Your task to perform on an android device: Search for "logitech g910" on newegg.com, select the first entry, add it to the cart, then select checkout. Image 0: 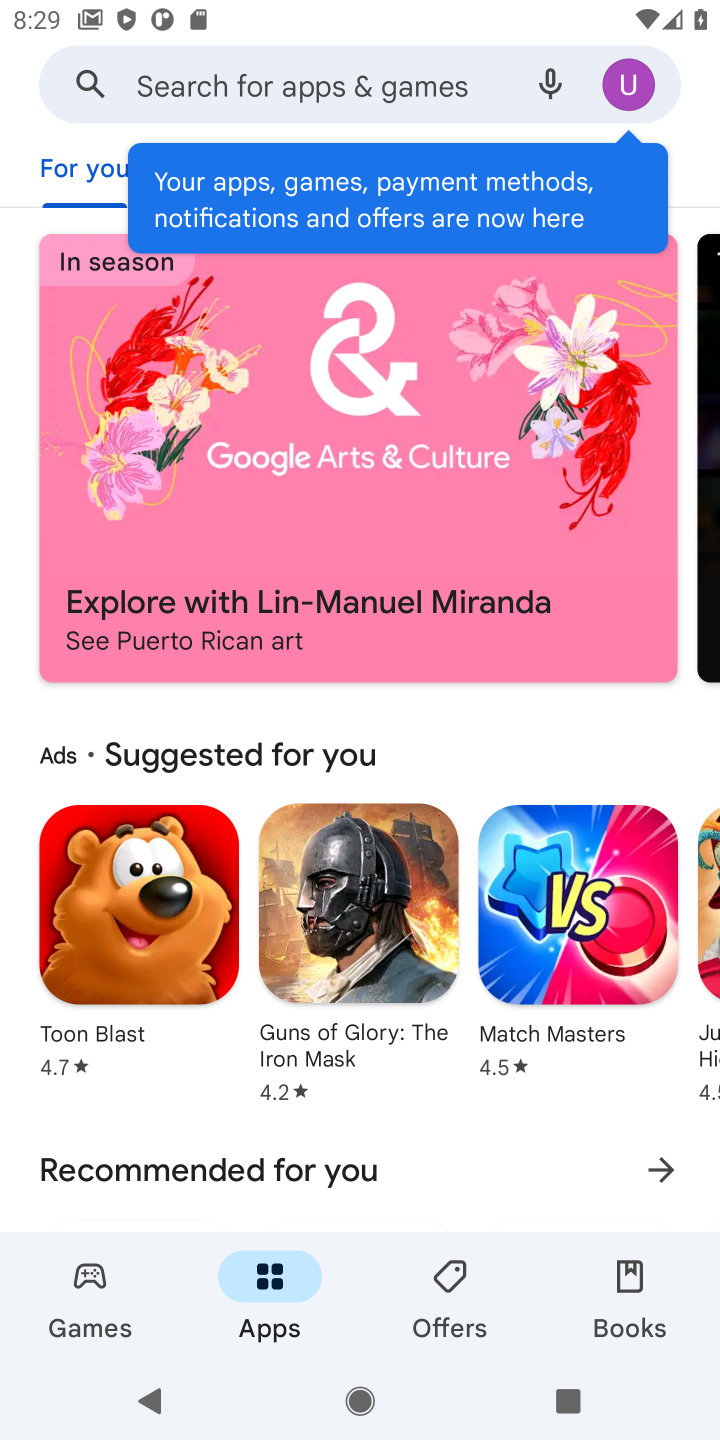
Step 0: press home button
Your task to perform on an android device: Search for "logitech g910" on newegg.com, select the first entry, add it to the cart, then select checkout. Image 1: 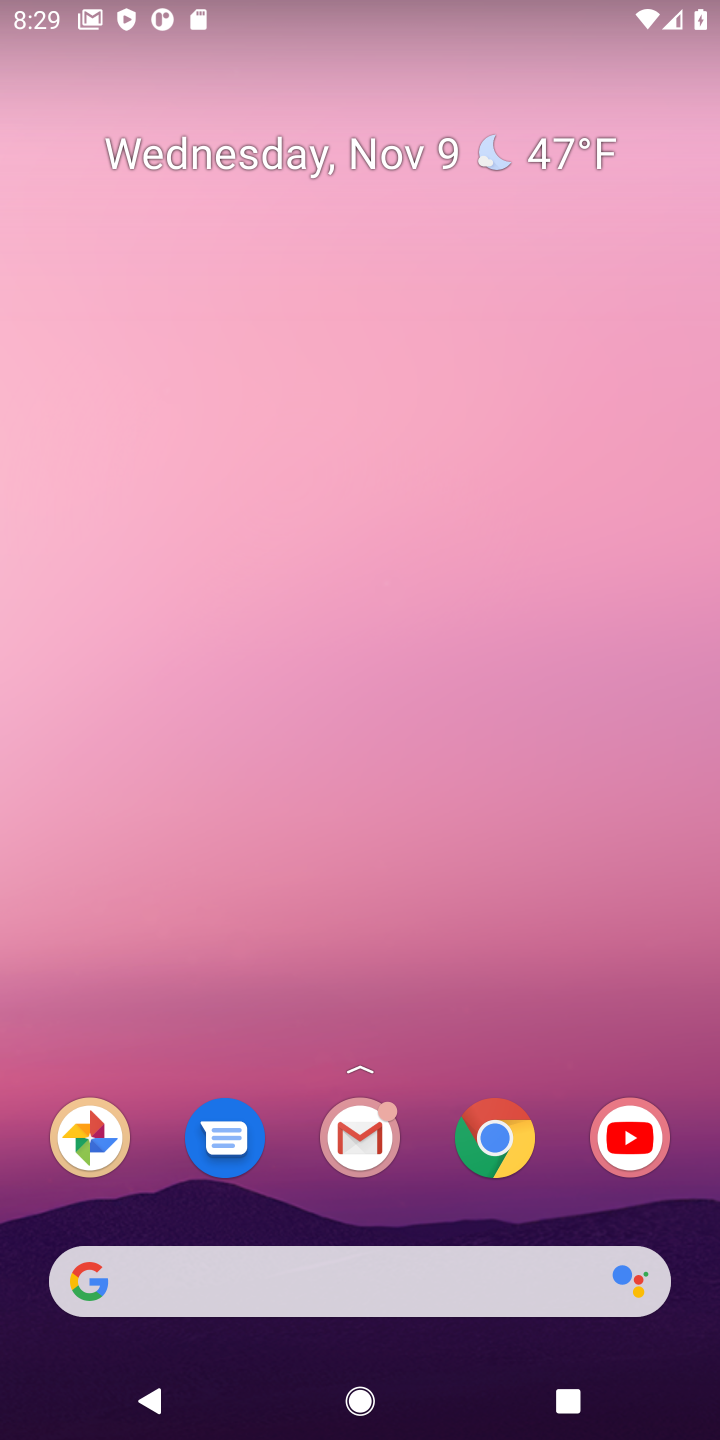
Step 1: drag from (459, 1211) to (430, 162)
Your task to perform on an android device: Search for "logitech g910" on newegg.com, select the first entry, add it to the cart, then select checkout. Image 2: 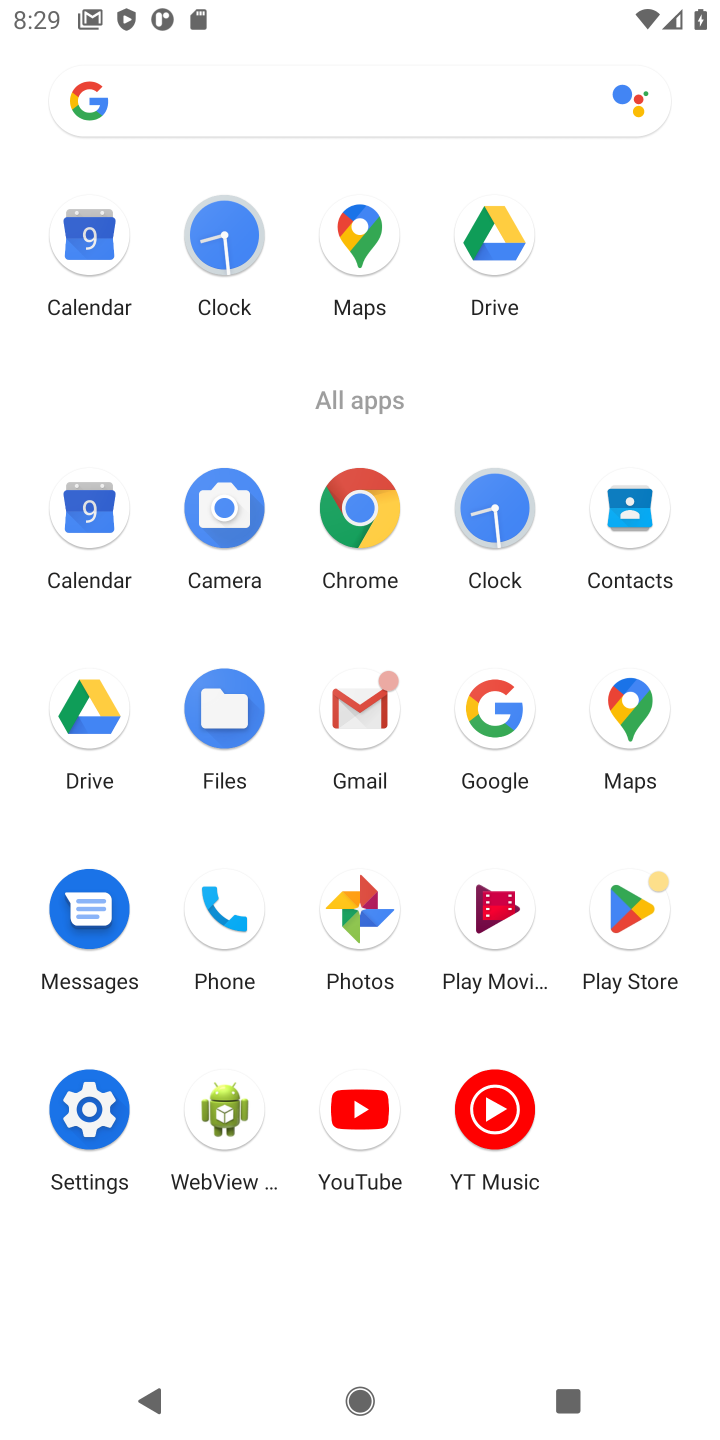
Step 2: click (354, 495)
Your task to perform on an android device: Search for "logitech g910" on newegg.com, select the first entry, add it to the cart, then select checkout. Image 3: 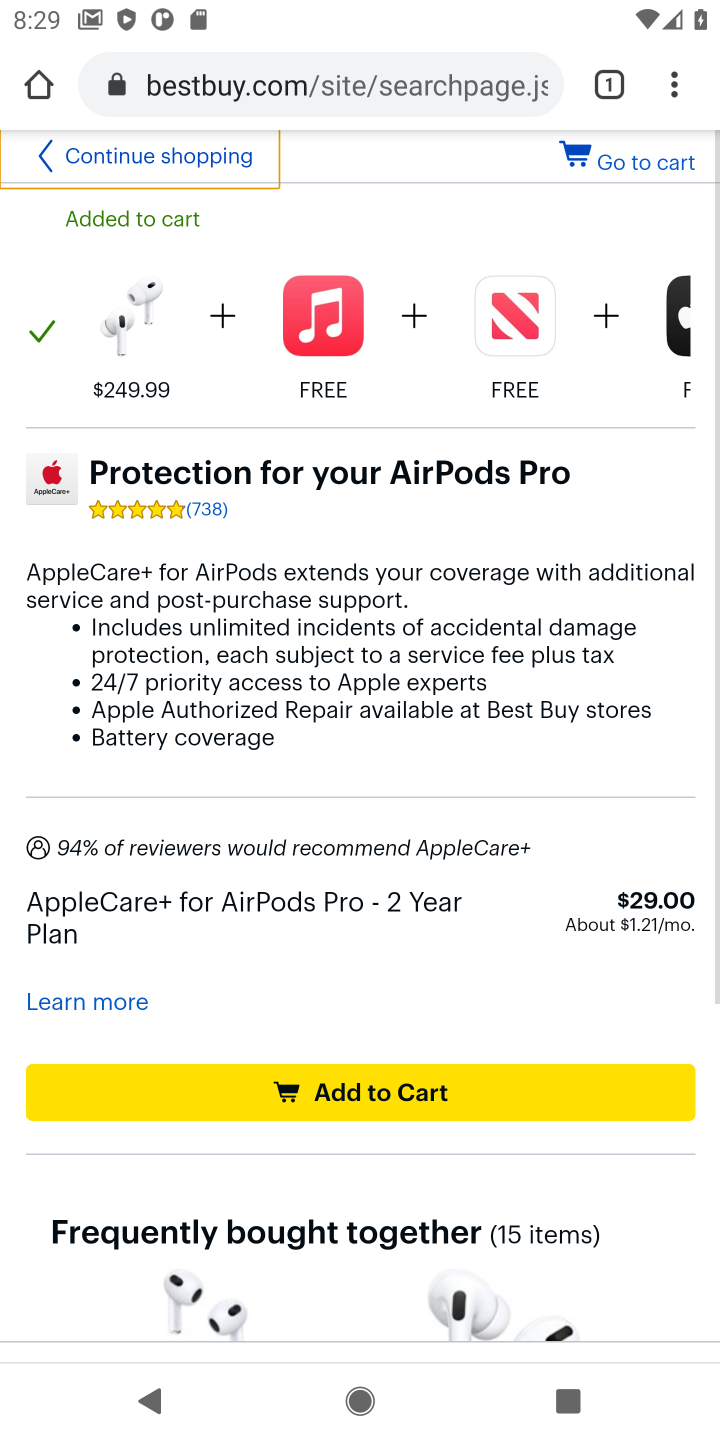
Step 3: drag from (441, 220) to (463, 510)
Your task to perform on an android device: Search for "logitech g910" on newegg.com, select the first entry, add it to the cart, then select checkout. Image 4: 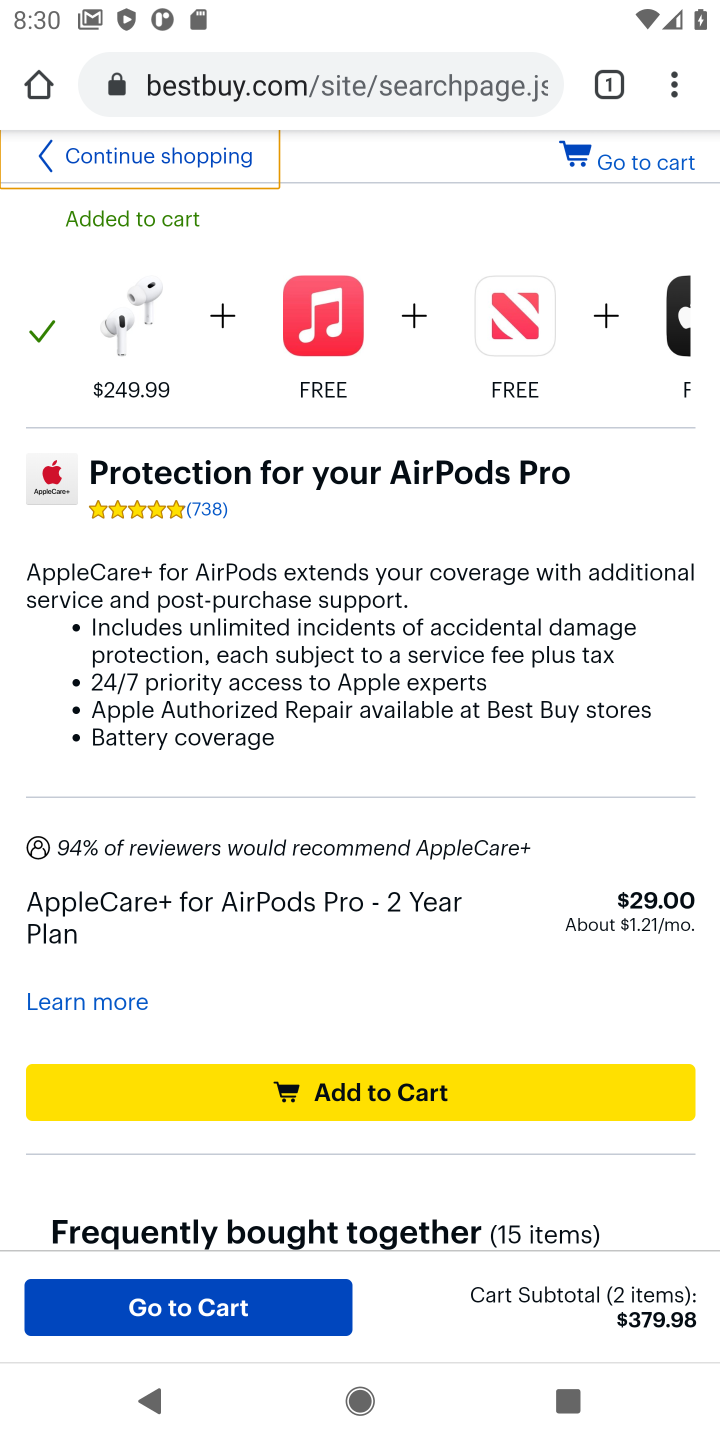
Step 4: click (393, 77)
Your task to perform on an android device: Search for "logitech g910" on newegg.com, select the first entry, add it to the cart, then select checkout. Image 5: 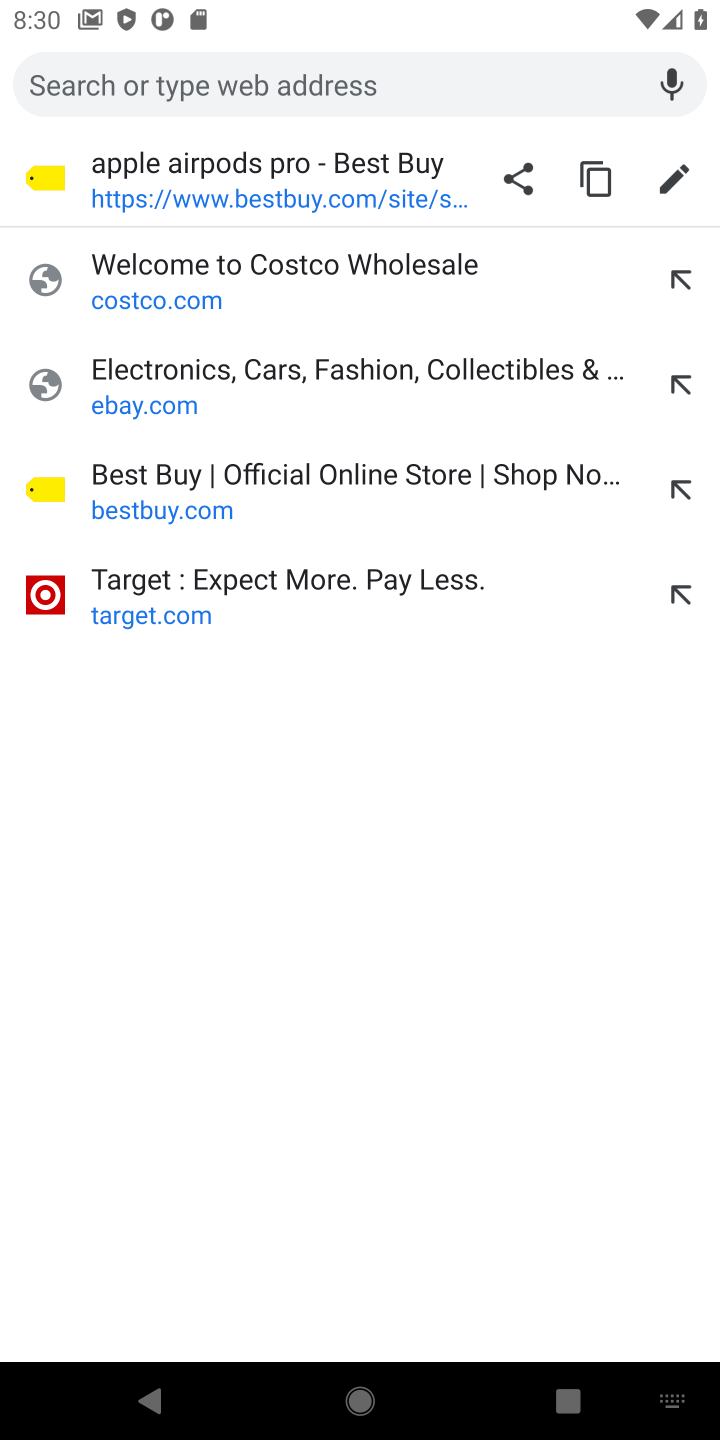
Step 5: type "newegg.com"
Your task to perform on an android device: Search for "logitech g910" on newegg.com, select the first entry, add it to the cart, then select checkout. Image 6: 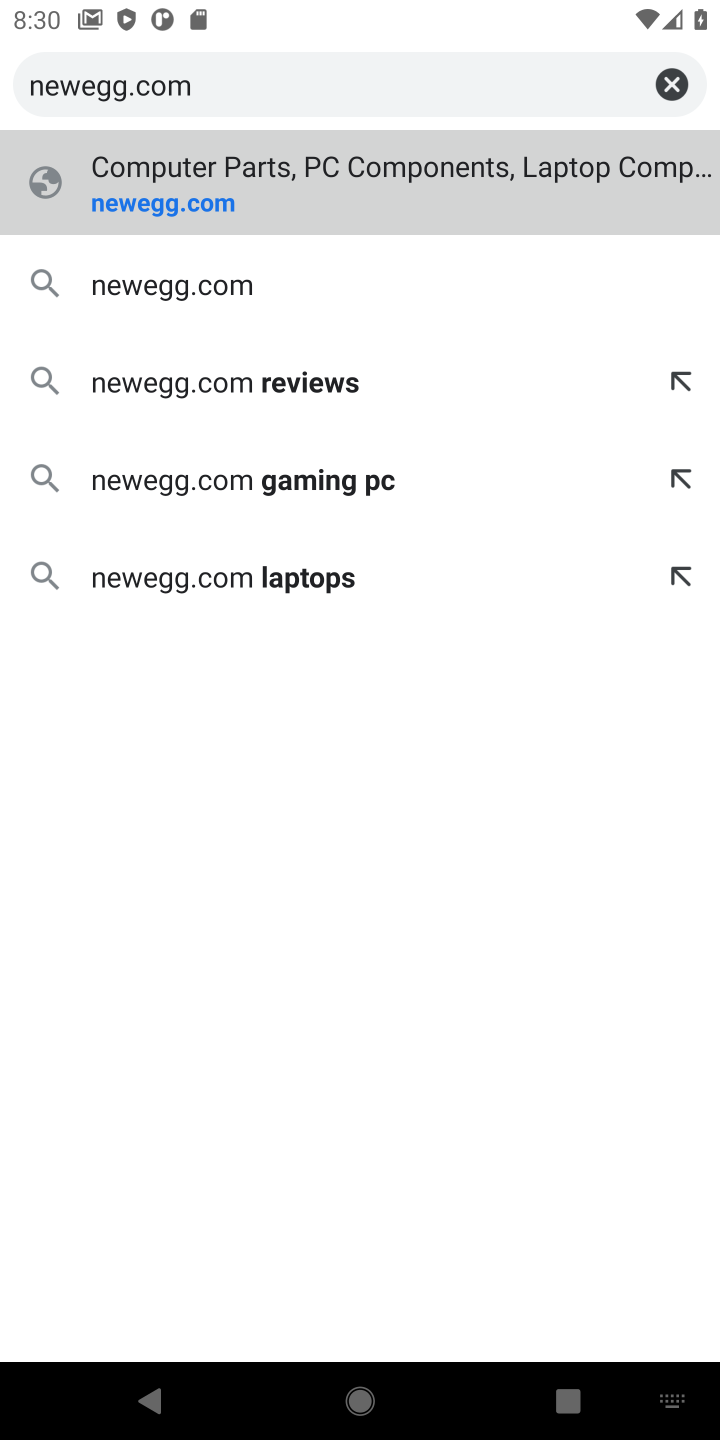
Step 6: press enter
Your task to perform on an android device: Search for "logitech g910" on newegg.com, select the first entry, add it to the cart, then select checkout. Image 7: 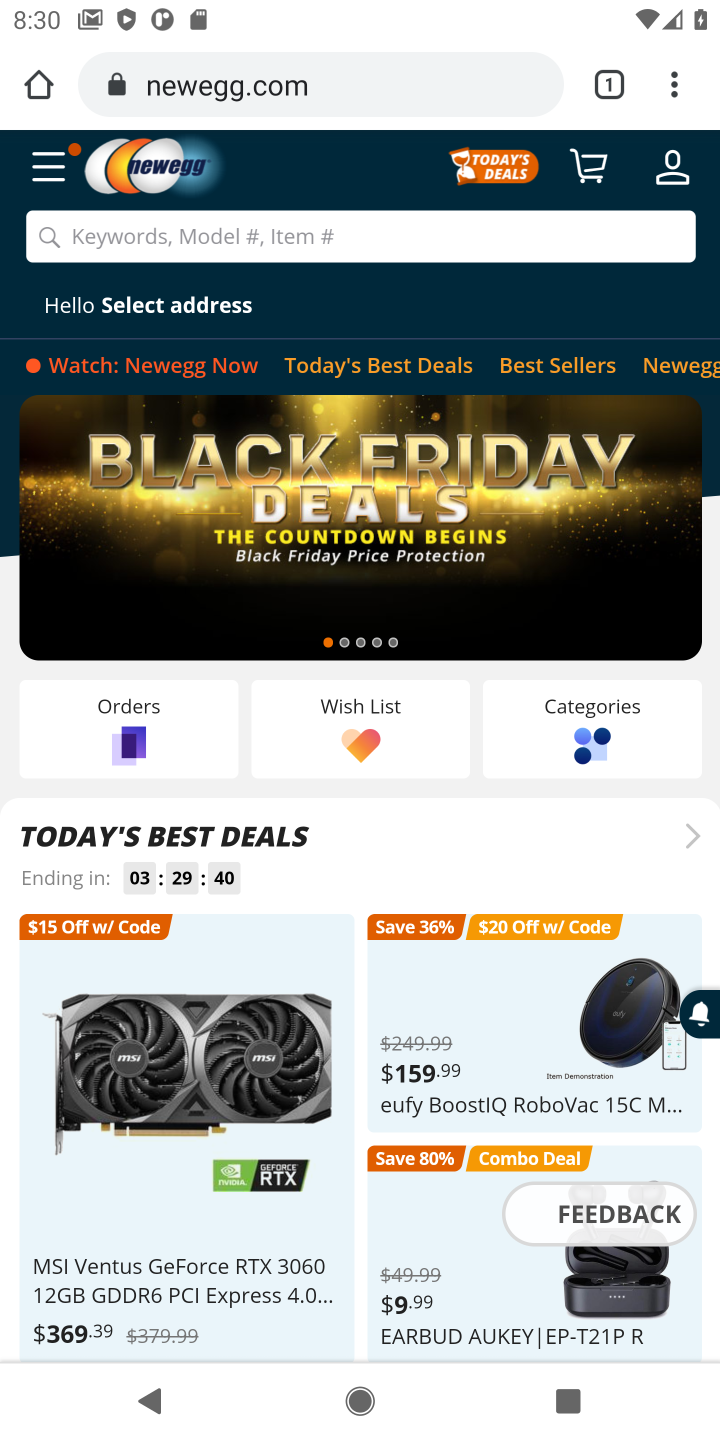
Step 7: click (435, 244)
Your task to perform on an android device: Search for "logitech g910" on newegg.com, select the first entry, add it to the cart, then select checkout. Image 8: 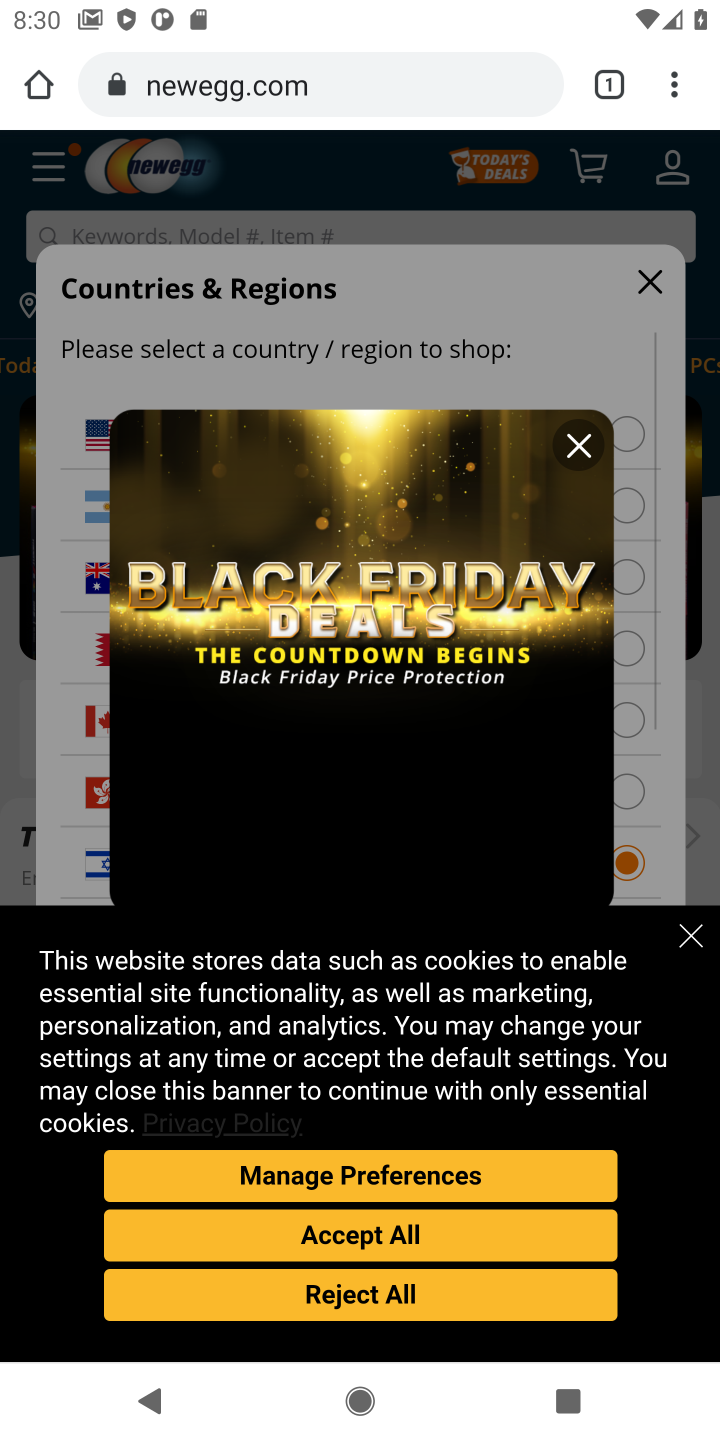
Step 8: click (654, 286)
Your task to perform on an android device: Search for "logitech g910" on newegg.com, select the first entry, add it to the cart, then select checkout. Image 9: 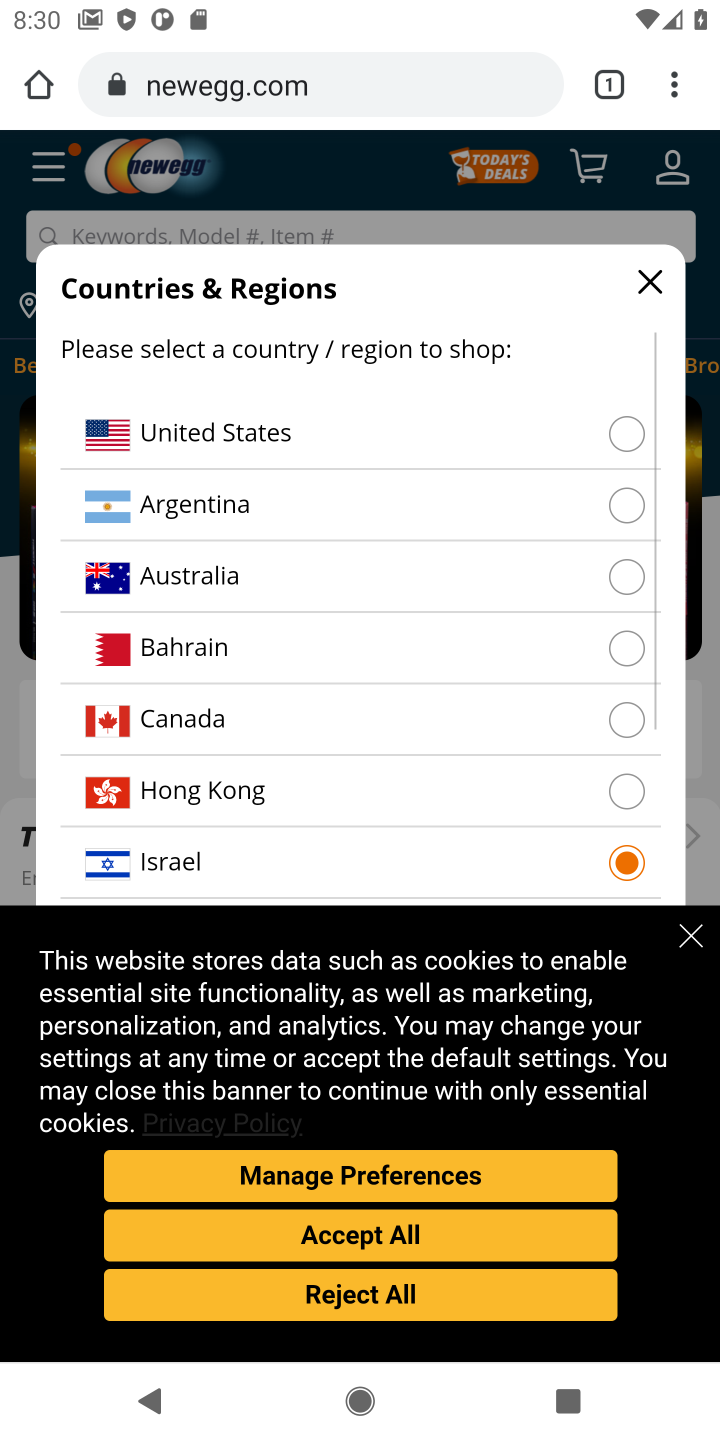
Step 9: click (654, 286)
Your task to perform on an android device: Search for "logitech g910" on newegg.com, select the first entry, add it to the cart, then select checkout. Image 10: 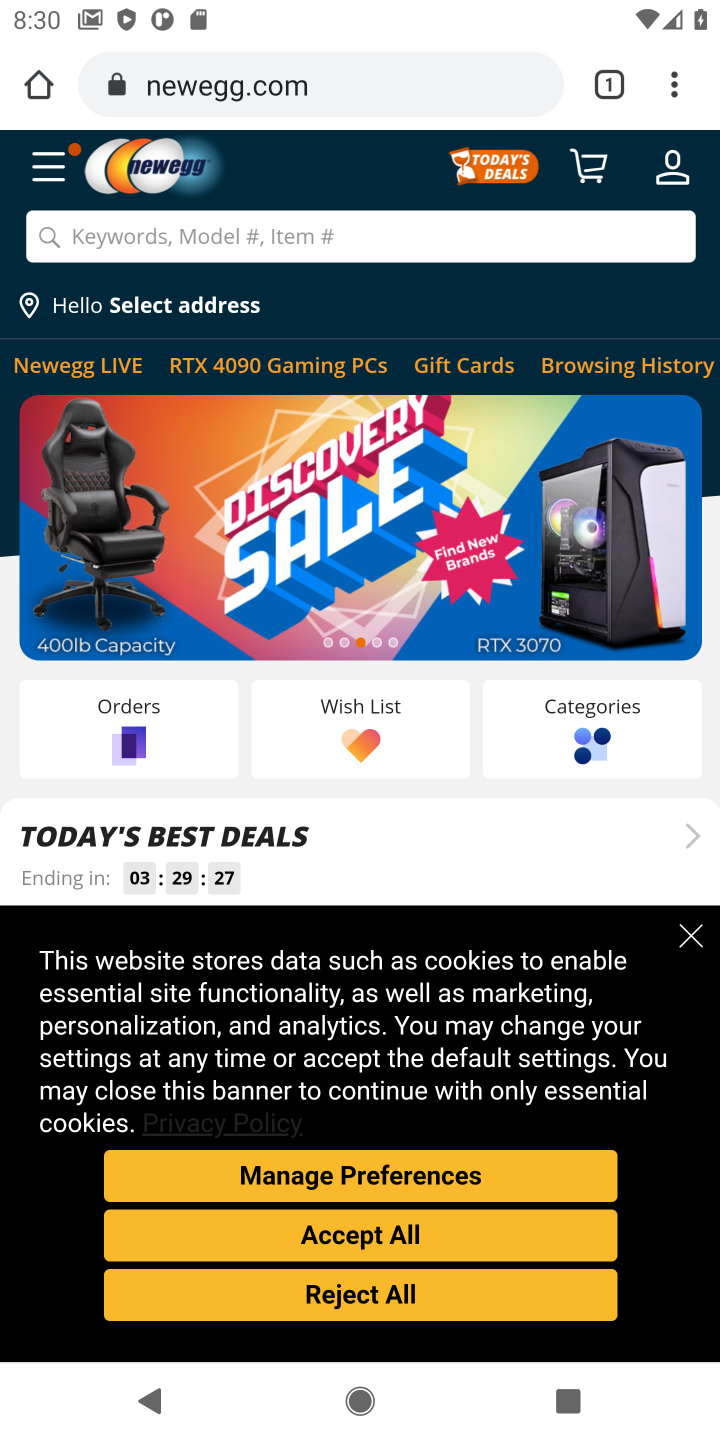
Step 10: click (563, 243)
Your task to perform on an android device: Search for "logitech g910" on newegg.com, select the first entry, add it to the cart, then select checkout. Image 11: 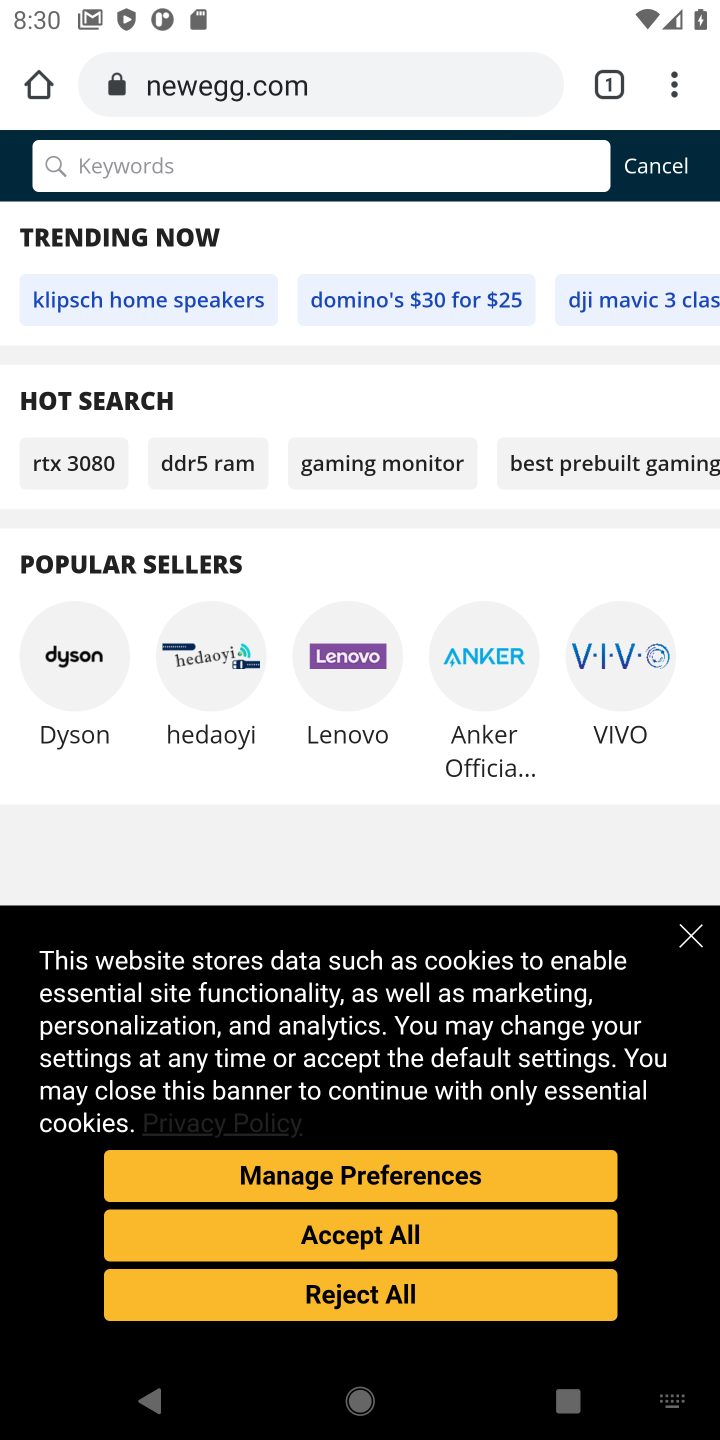
Step 11: type "logitech g910"
Your task to perform on an android device: Search for "logitech g910" on newegg.com, select the first entry, add it to the cart, then select checkout. Image 12: 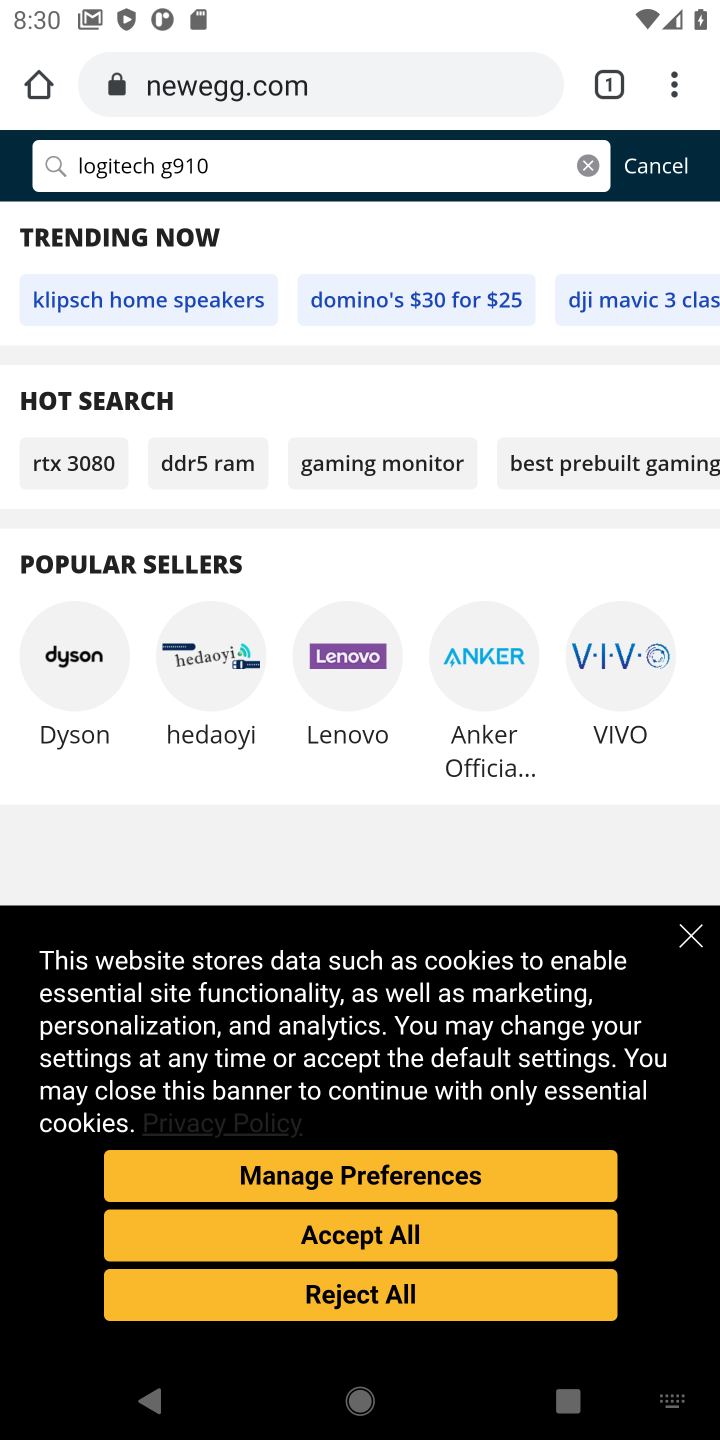
Step 12: press enter
Your task to perform on an android device: Search for "logitech g910" on newegg.com, select the first entry, add it to the cart, then select checkout. Image 13: 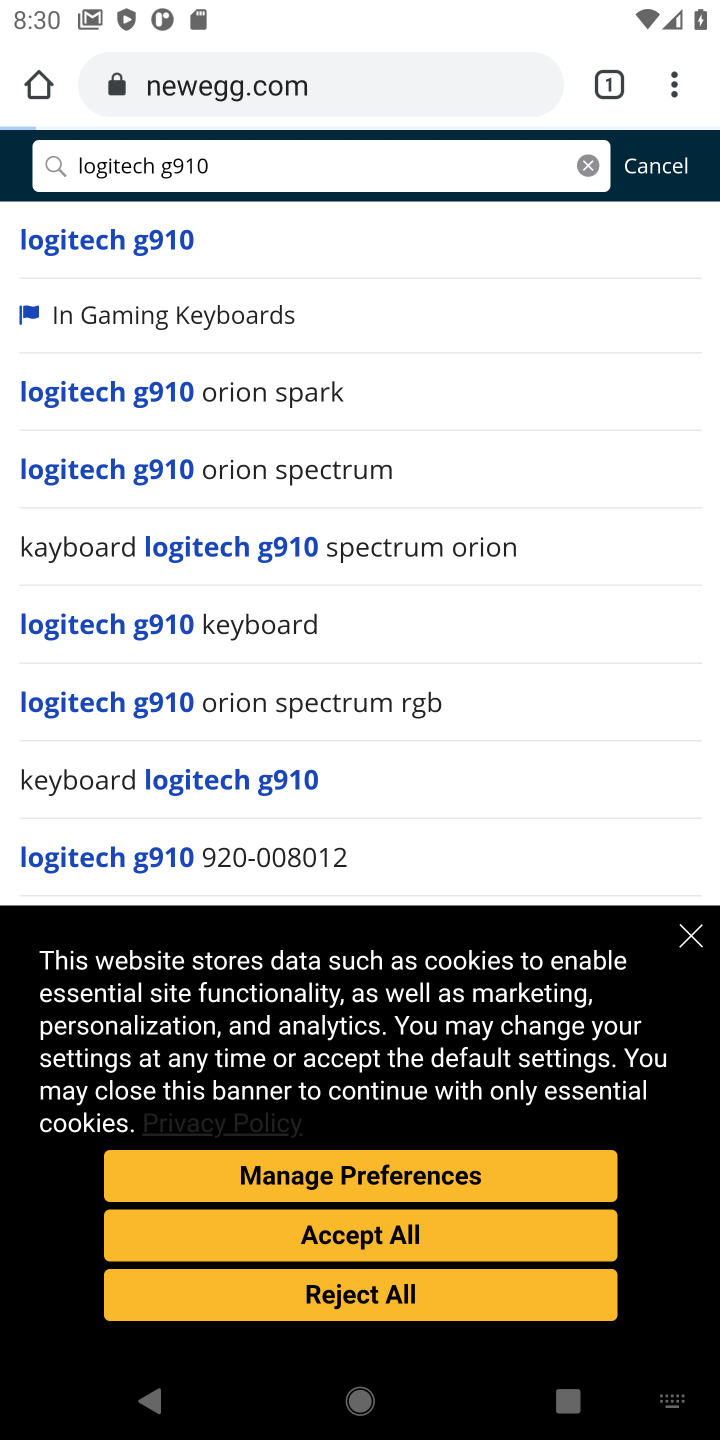
Step 13: click (276, 1227)
Your task to perform on an android device: Search for "logitech g910" on newegg.com, select the first entry, add it to the cart, then select checkout. Image 14: 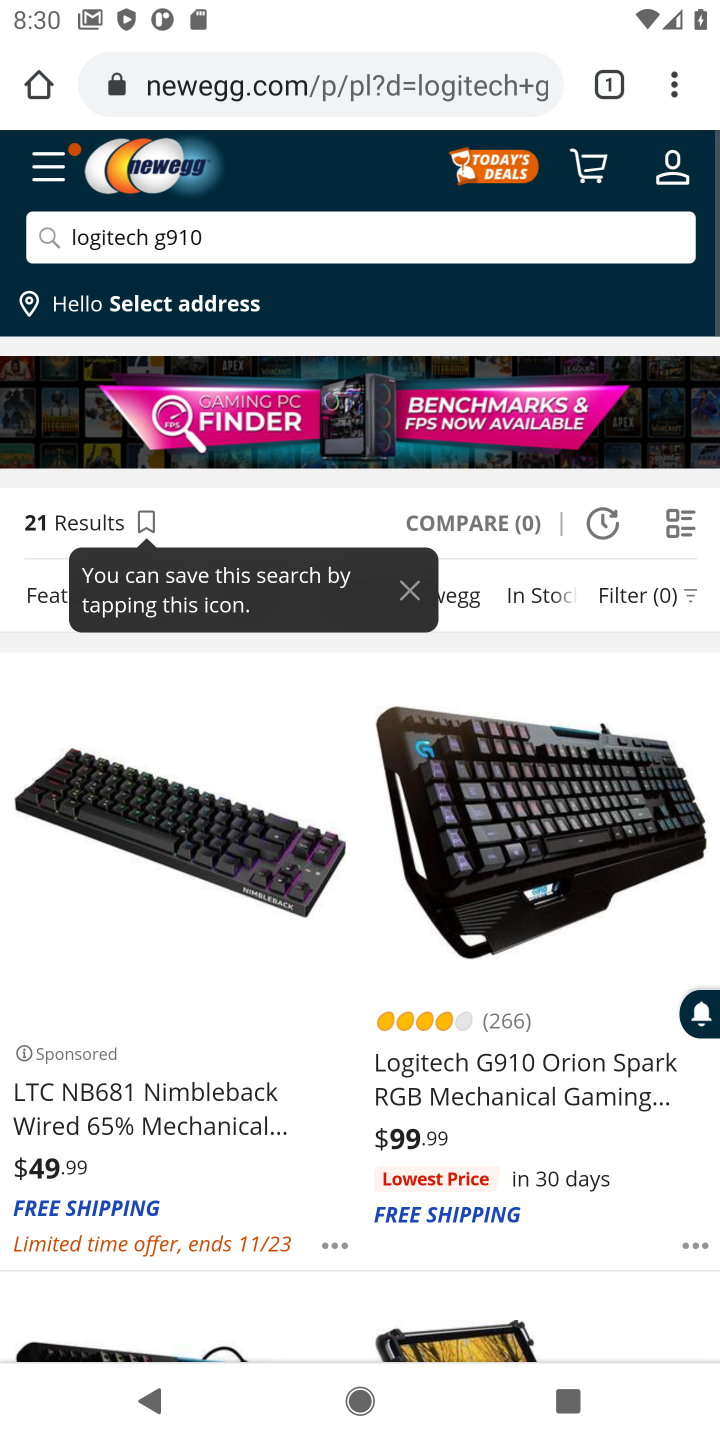
Step 14: click (523, 826)
Your task to perform on an android device: Search for "logitech g910" on newegg.com, select the first entry, add it to the cart, then select checkout. Image 15: 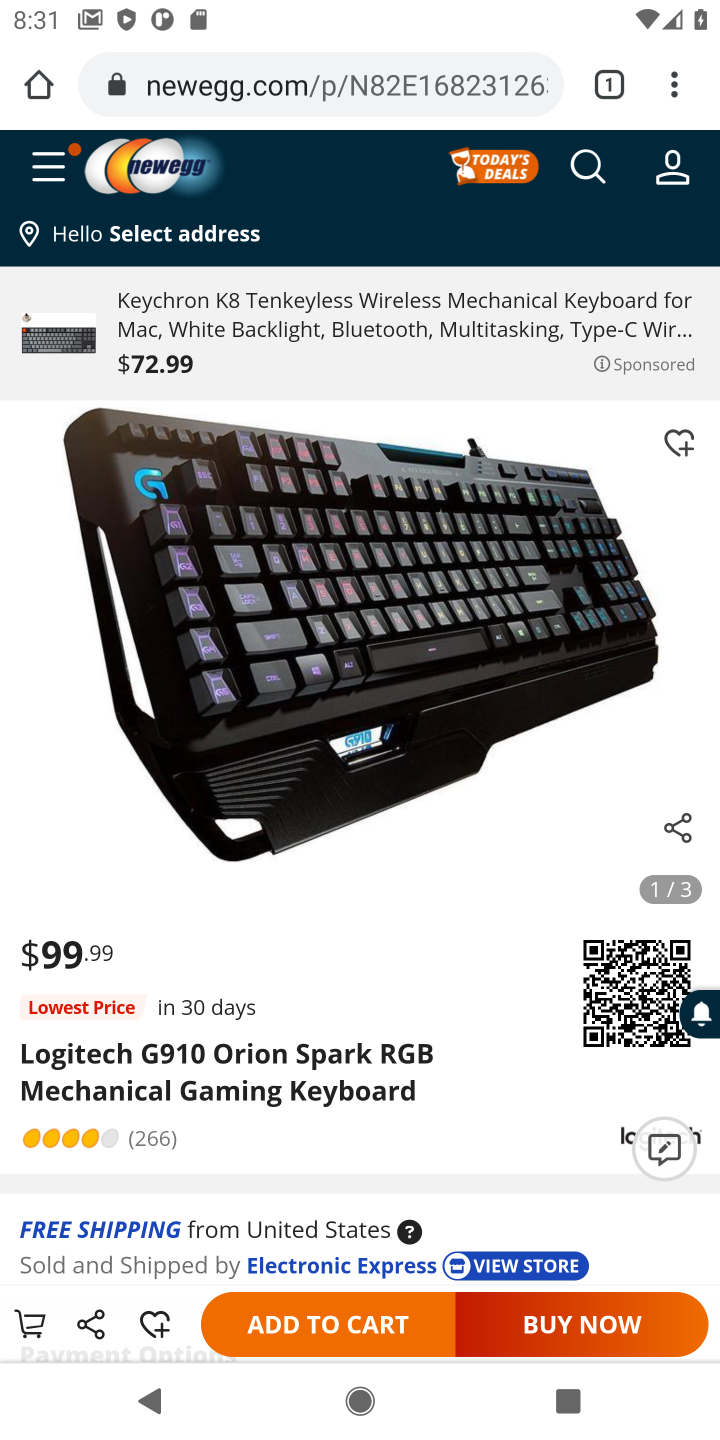
Step 15: click (357, 1321)
Your task to perform on an android device: Search for "logitech g910" on newegg.com, select the first entry, add it to the cart, then select checkout. Image 16: 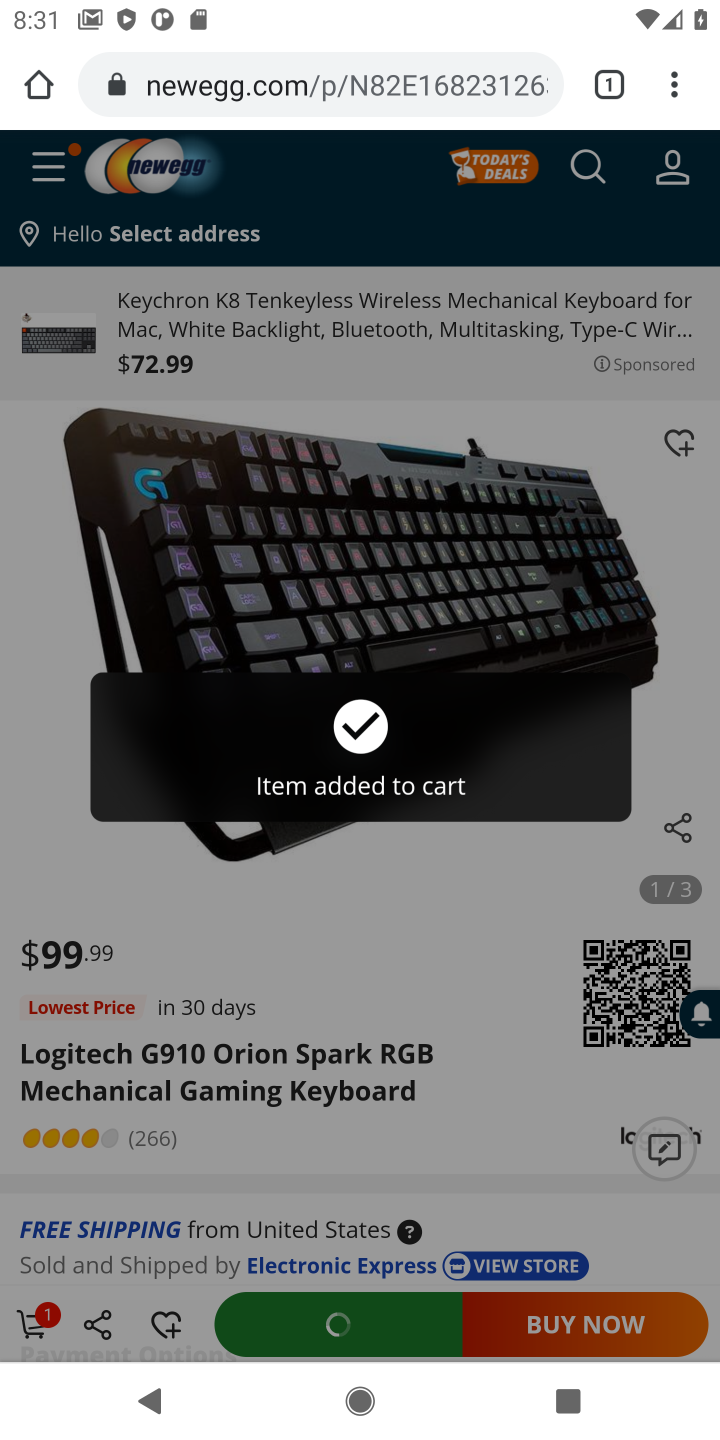
Step 16: click (40, 1331)
Your task to perform on an android device: Search for "logitech g910" on newegg.com, select the first entry, add it to the cart, then select checkout. Image 17: 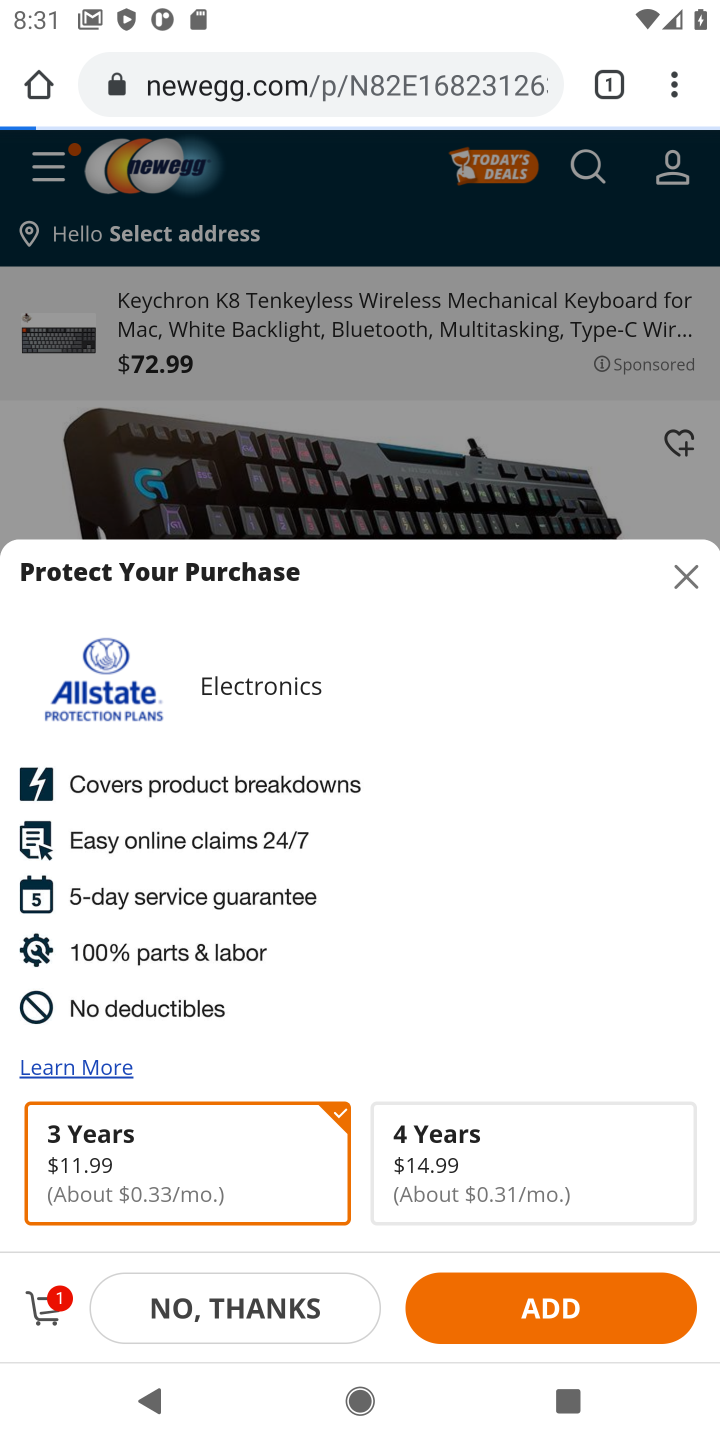
Step 17: click (52, 1298)
Your task to perform on an android device: Search for "logitech g910" on newegg.com, select the first entry, add it to the cart, then select checkout. Image 18: 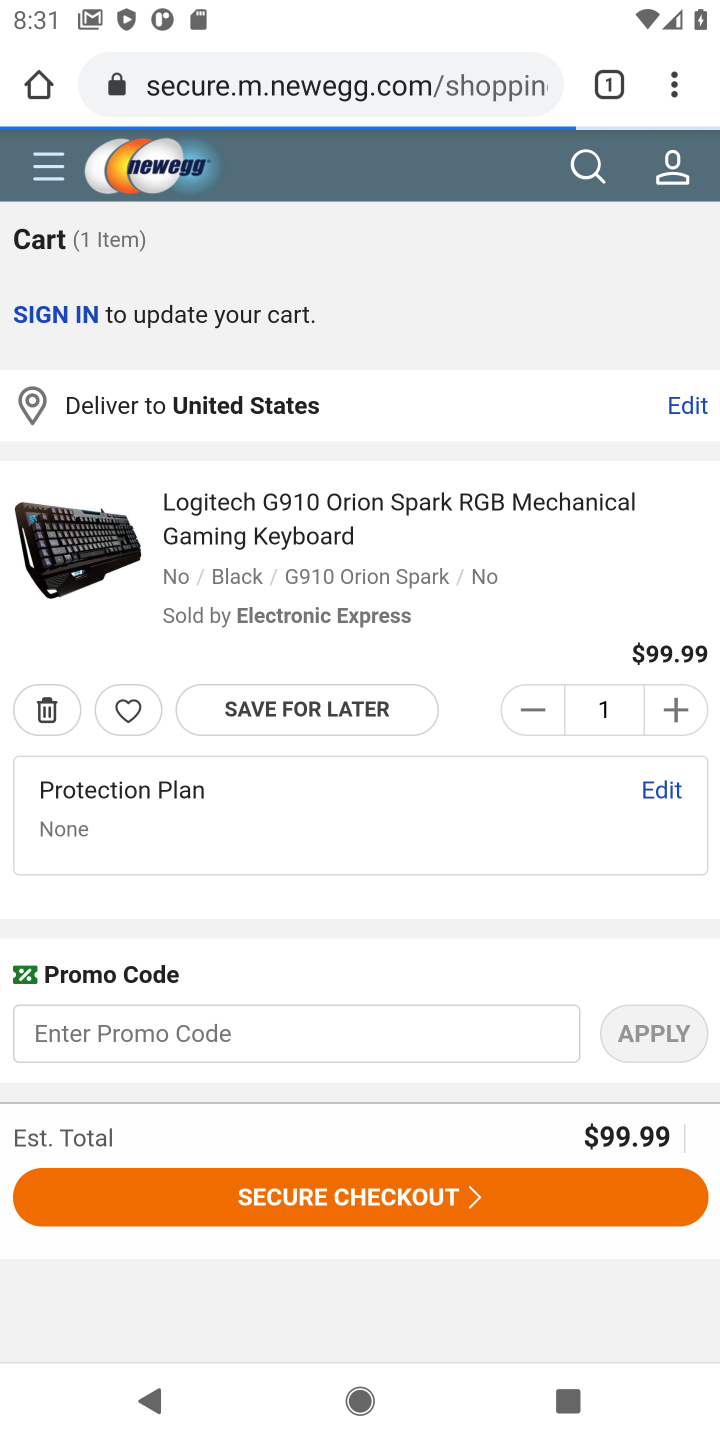
Step 18: click (404, 1206)
Your task to perform on an android device: Search for "logitech g910" on newegg.com, select the first entry, add it to the cart, then select checkout. Image 19: 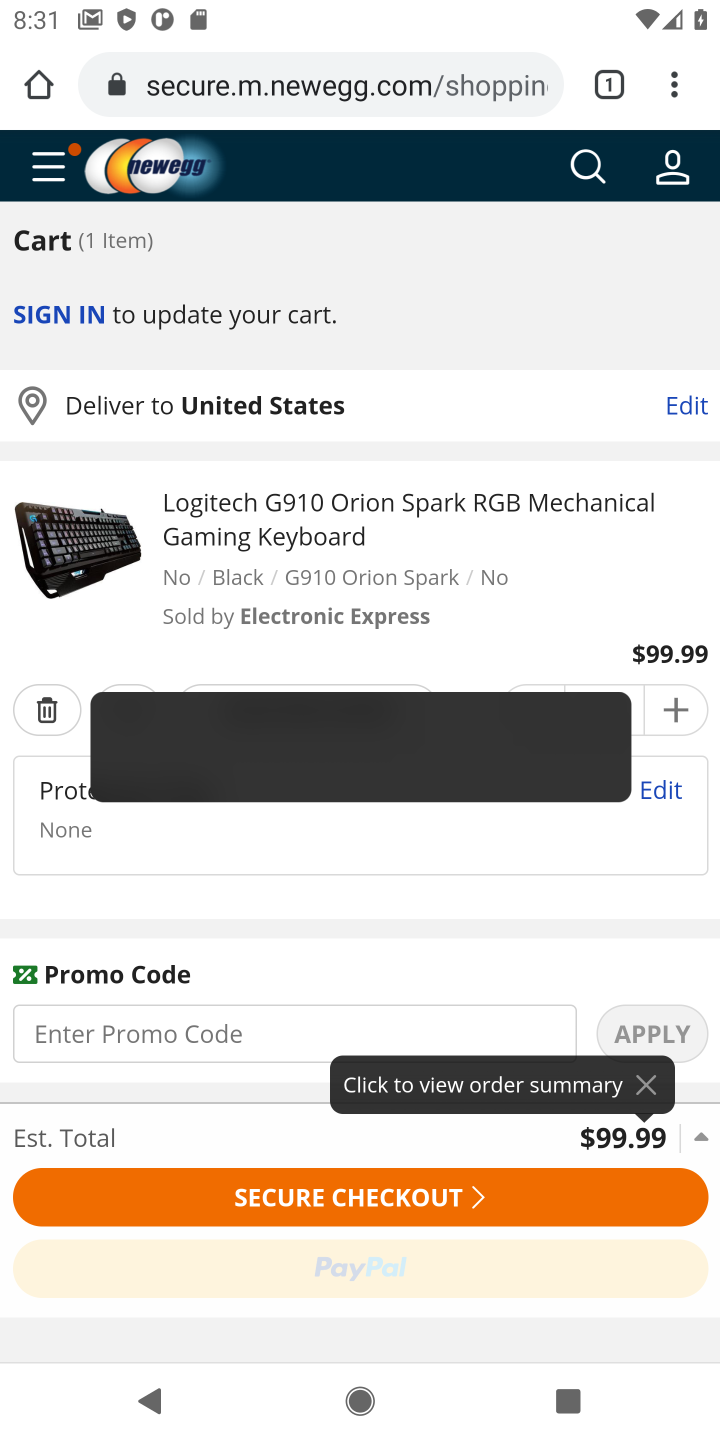
Step 19: click (429, 1190)
Your task to perform on an android device: Search for "logitech g910" on newegg.com, select the first entry, add it to the cart, then select checkout. Image 20: 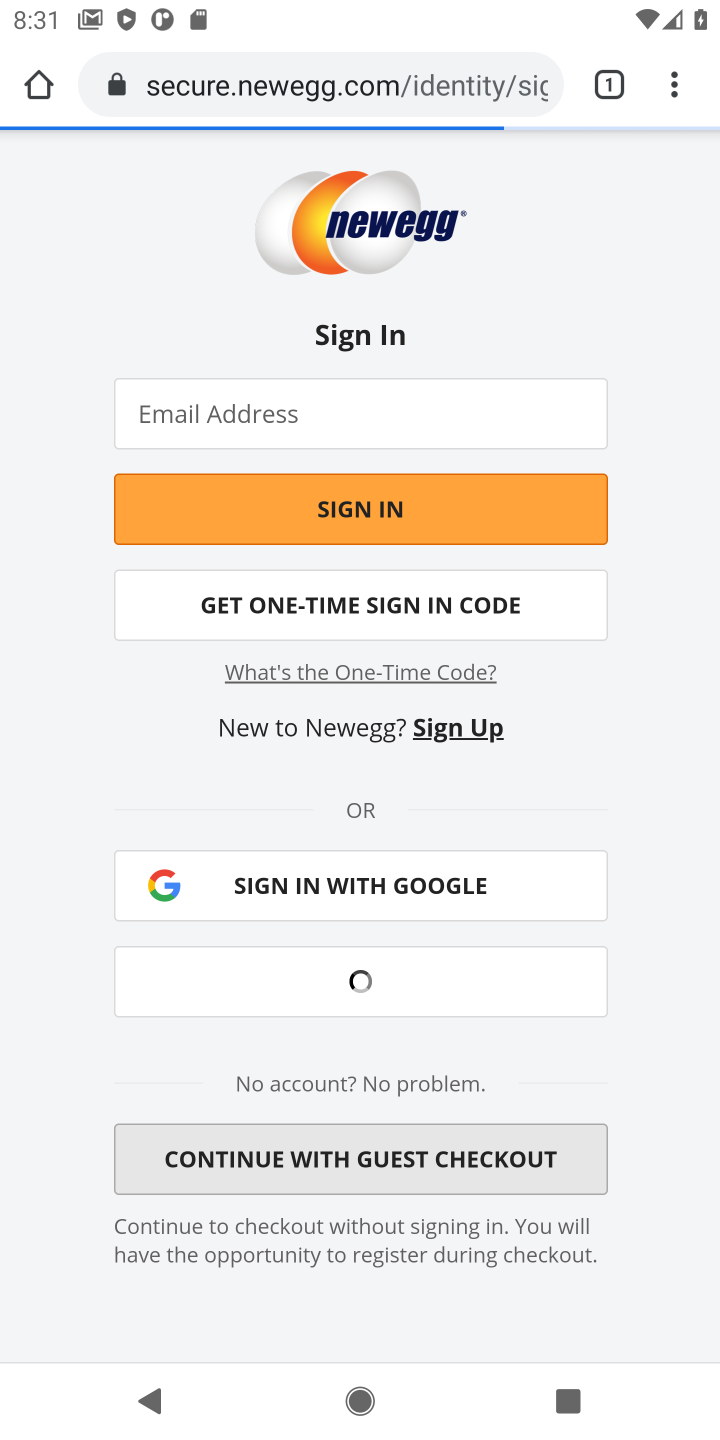
Step 20: click (432, 1234)
Your task to perform on an android device: Search for "logitech g910" on newegg.com, select the first entry, add it to the cart, then select checkout. Image 21: 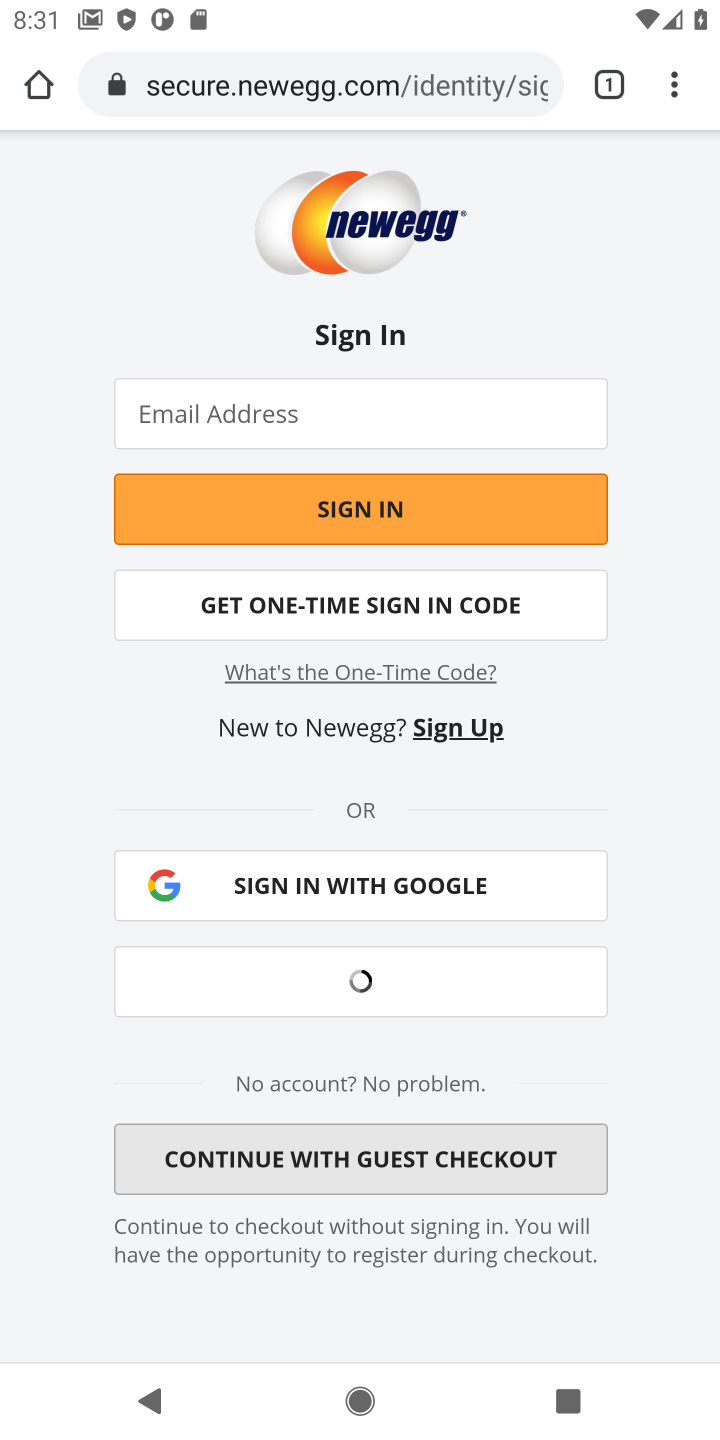
Step 21: task complete